Your task to perform on an android device: turn off notifications in google photos Image 0: 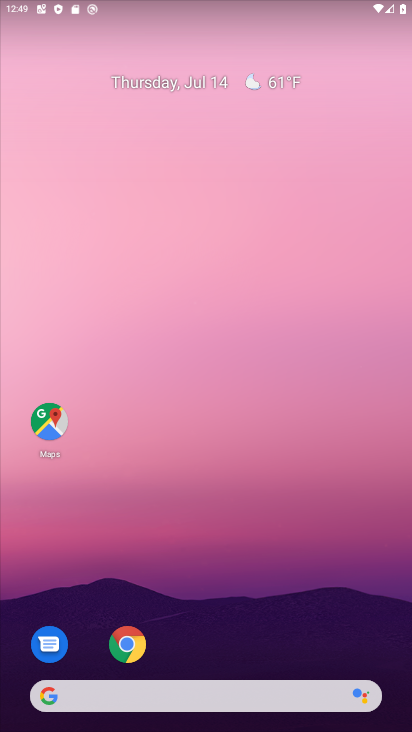
Step 0: drag from (288, 704) to (350, 16)
Your task to perform on an android device: turn off notifications in google photos Image 1: 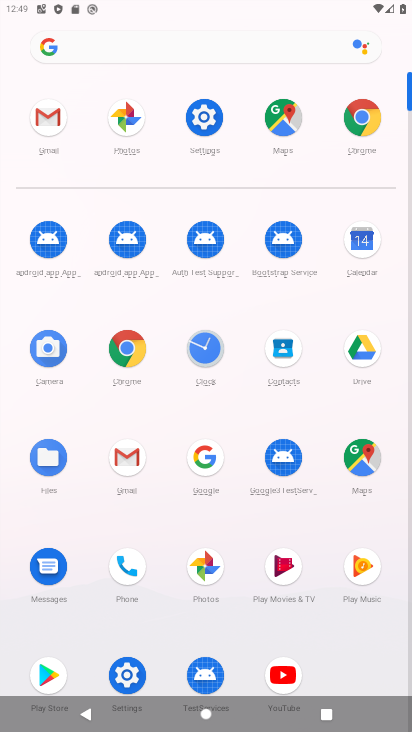
Step 1: click (210, 569)
Your task to perform on an android device: turn off notifications in google photos Image 2: 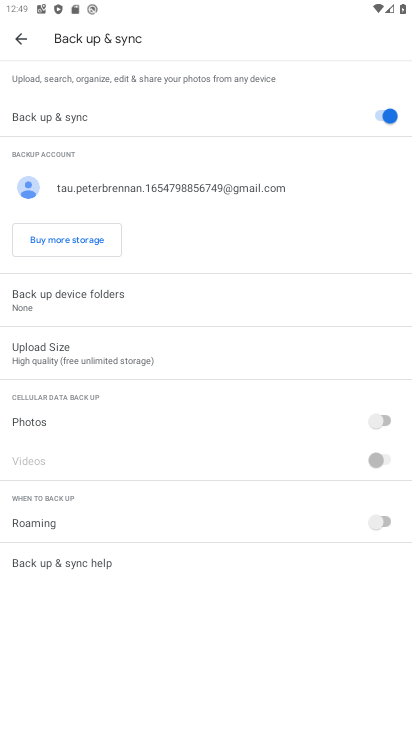
Step 2: press back button
Your task to perform on an android device: turn off notifications in google photos Image 3: 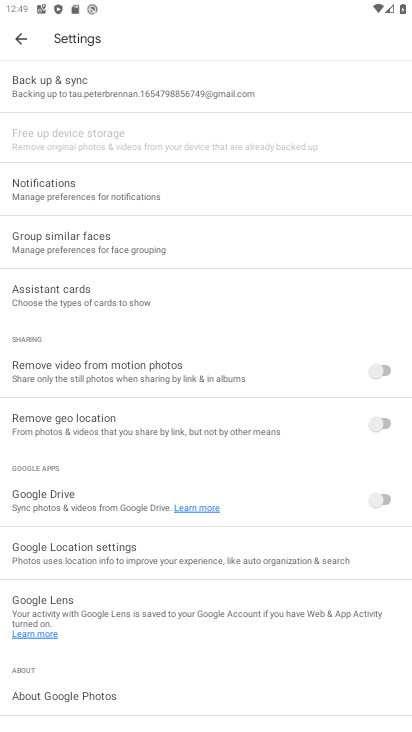
Step 3: click (115, 182)
Your task to perform on an android device: turn off notifications in google photos Image 4: 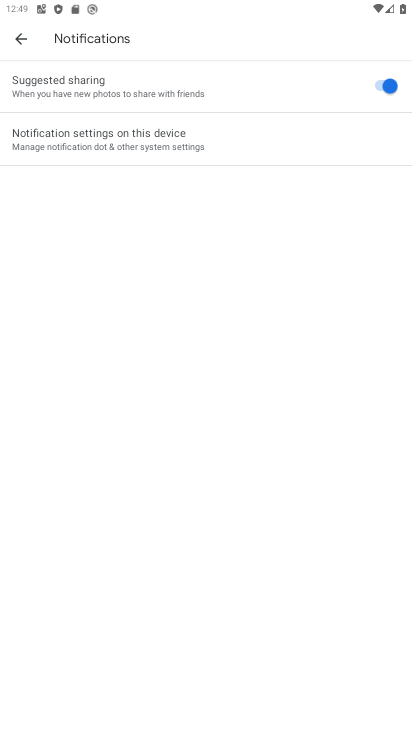
Step 4: click (348, 131)
Your task to perform on an android device: turn off notifications in google photos Image 5: 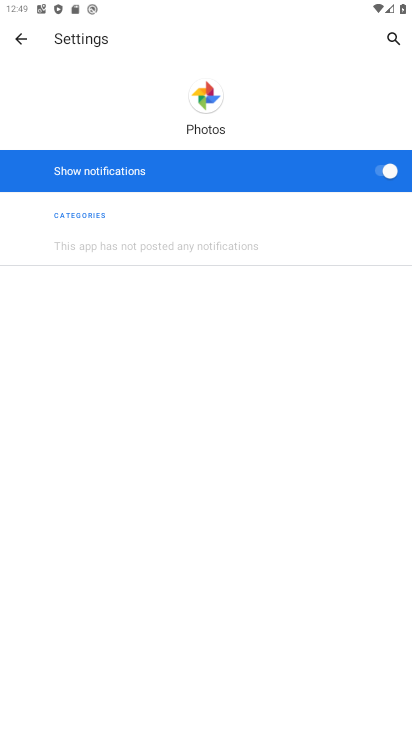
Step 5: click (383, 170)
Your task to perform on an android device: turn off notifications in google photos Image 6: 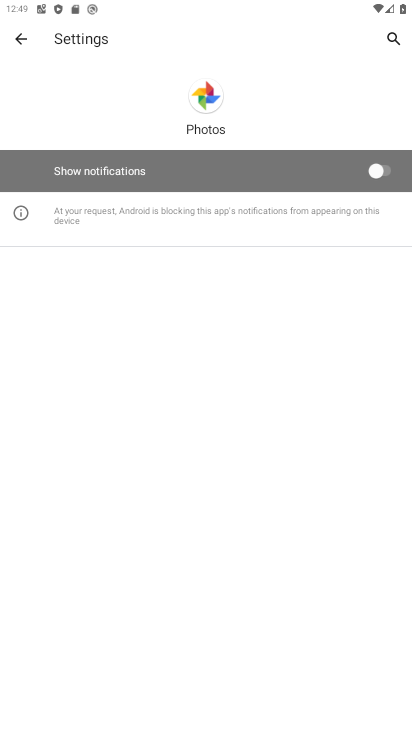
Step 6: task complete